Your task to perform on an android device: What's the weather today? Image 0: 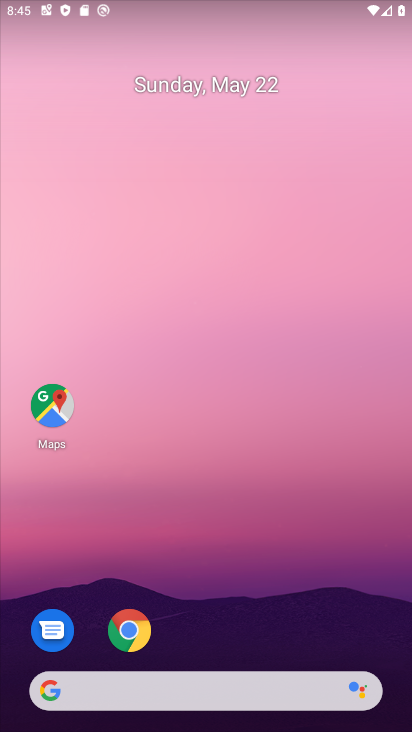
Step 0: click (227, 688)
Your task to perform on an android device: What's the weather today? Image 1: 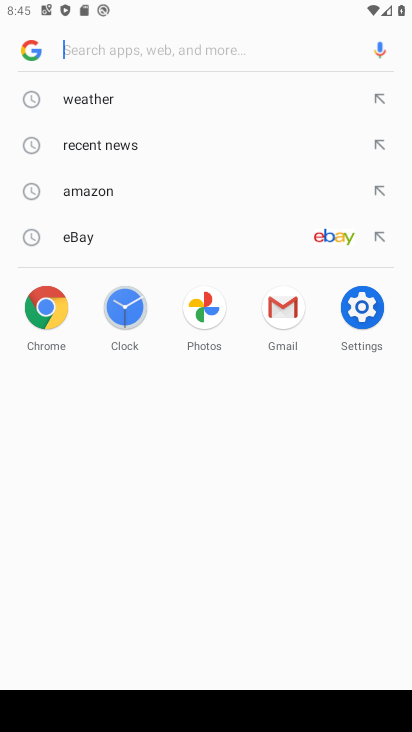
Step 1: click (151, 100)
Your task to perform on an android device: What's the weather today? Image 2: 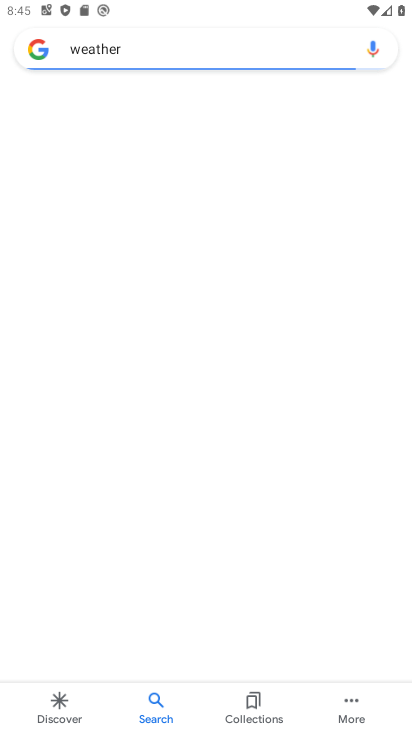
Step 2: task complete